Your task to perform on an android device: open app "VLC for Android" Image 0: 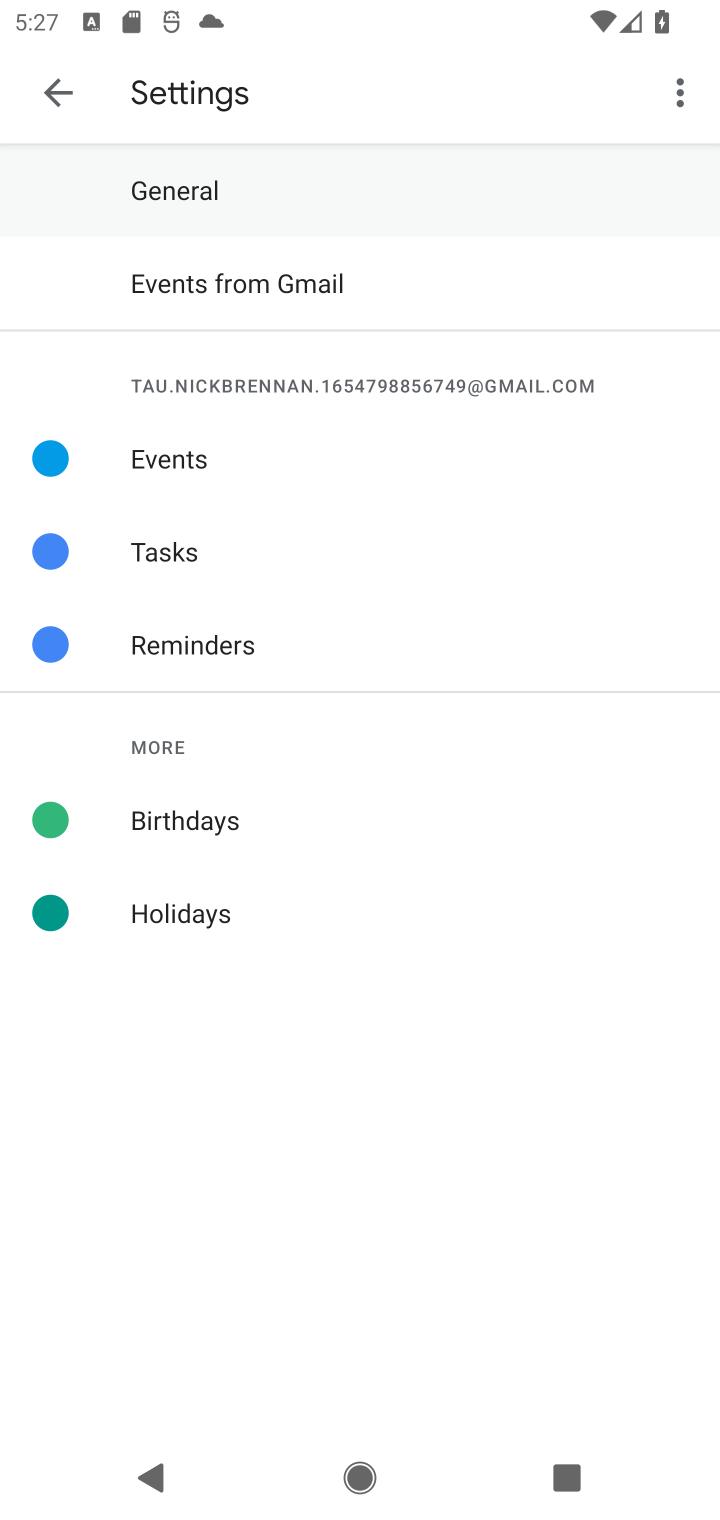
Step 0: press home button
Your task to perform on an android device: open app "VLC for Android" Image 1: 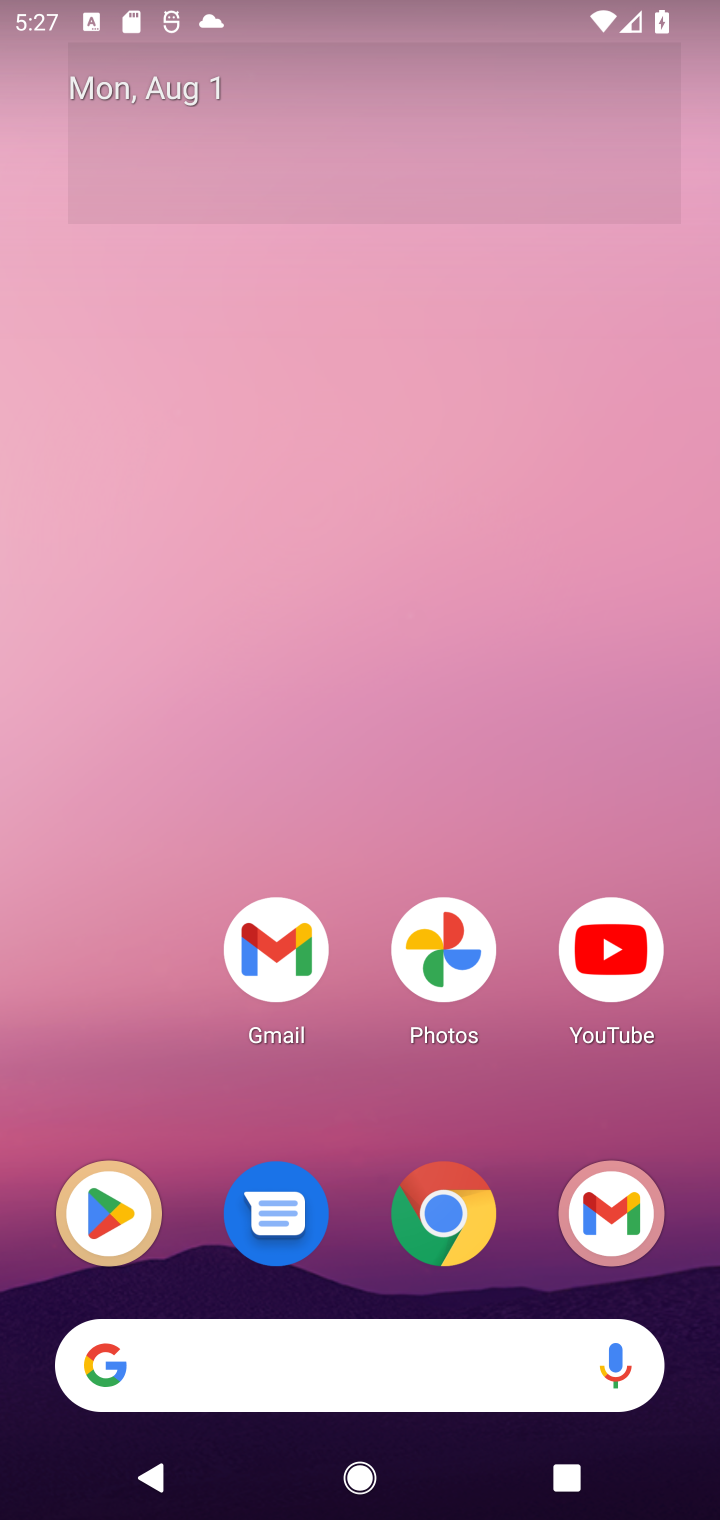
Step 1: drag from (550, 1112) to (585, 38)
Your task to perform on an android device: open app "VLC for Android" Image 2: 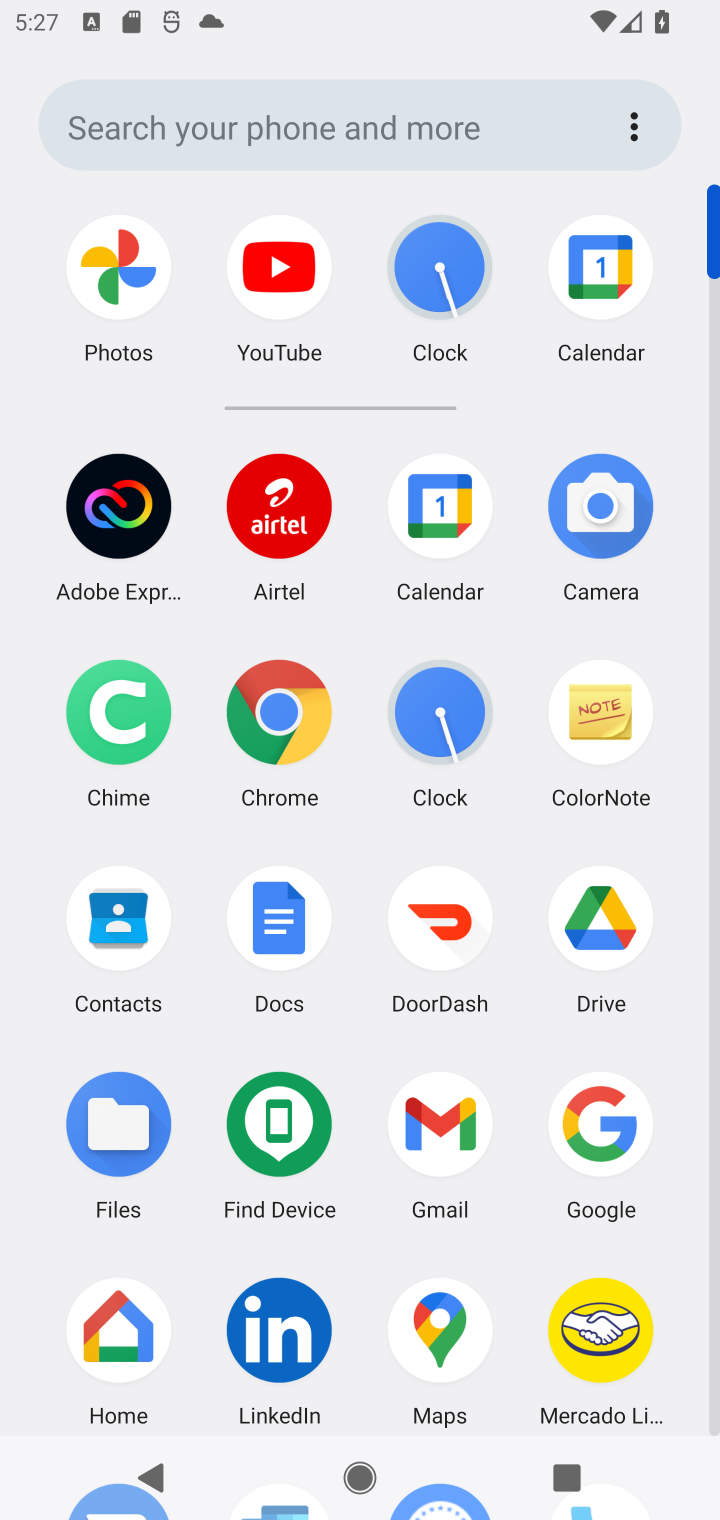
Step 2: drag from (374, 1284) to (404, 466)
Your task to perform on an android device: open app "VLC for Android" Image 3: 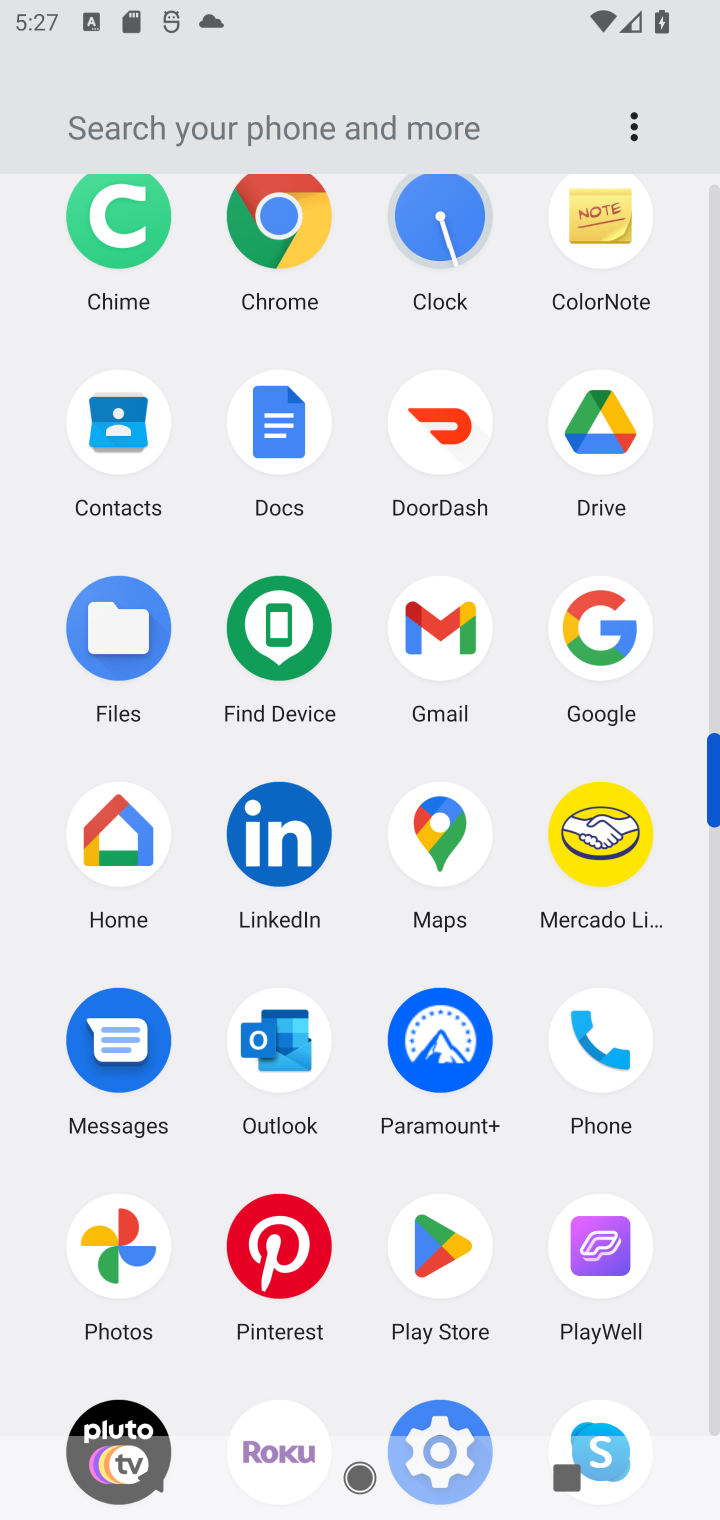
Step 3: click (453, 1241)
Your task to perform on an android device: open app "VLC for Android" Image 4: 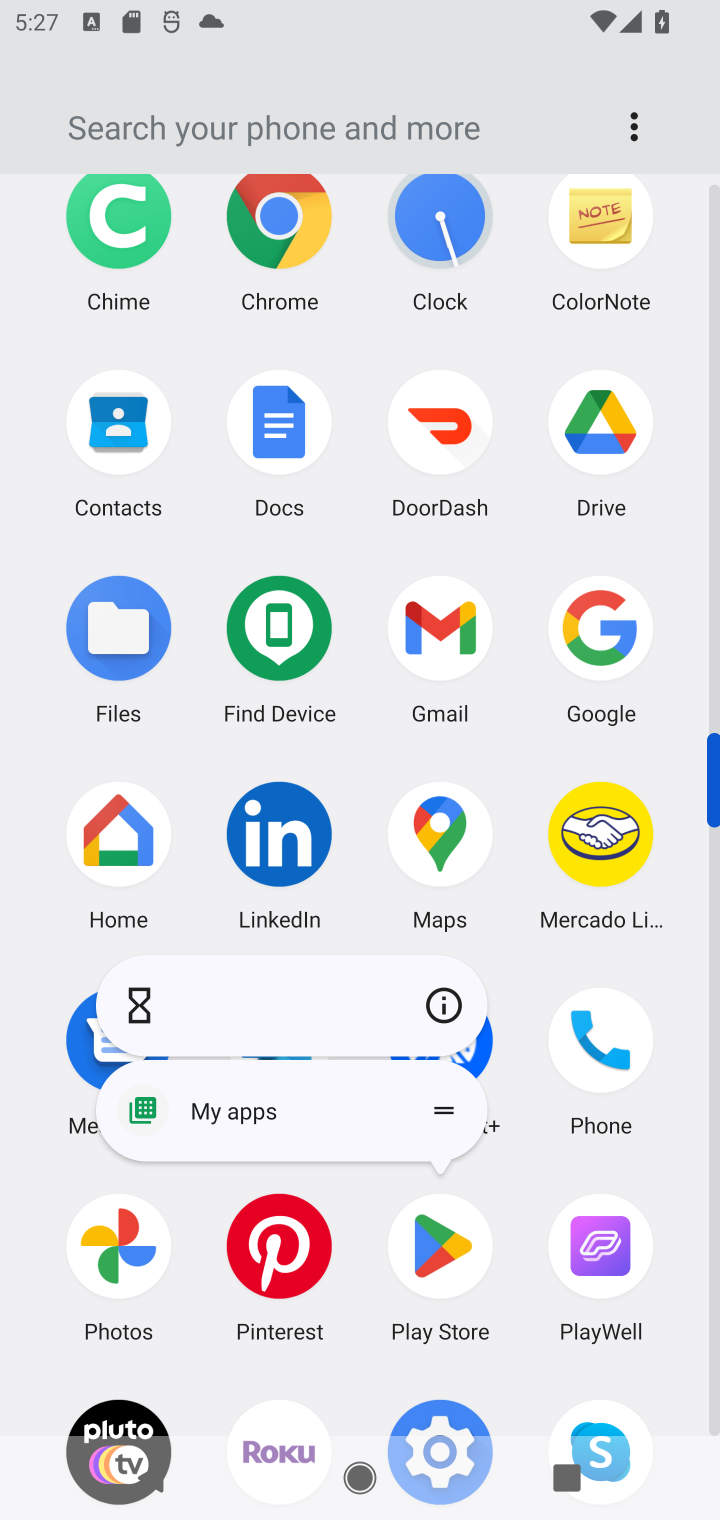
Step 4: click (451, 1241)
Your task to perform on an android device: open app "VLC for Android" Image 5: 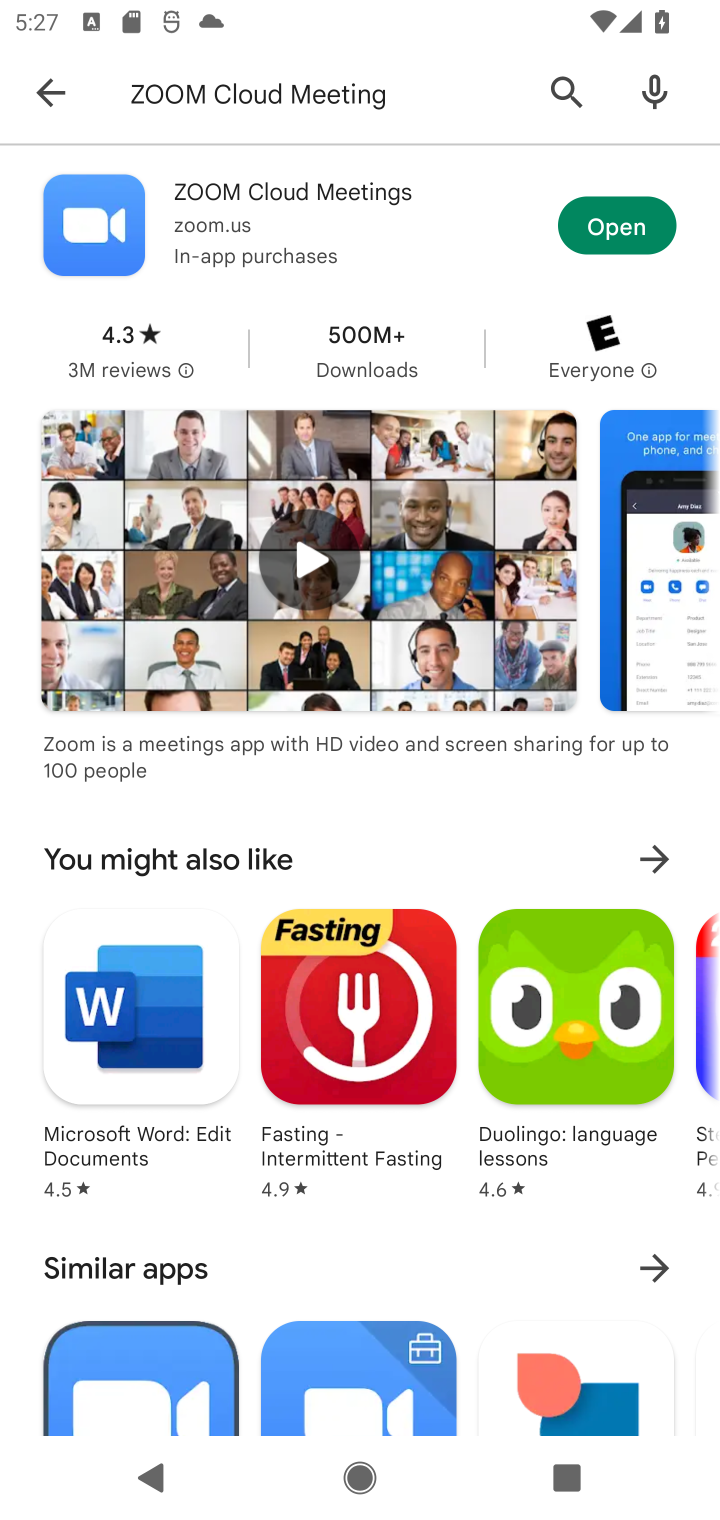
Step 5: click (394, 105)
Your task to perform on an android device: open app "VLC for Android" Image 6: 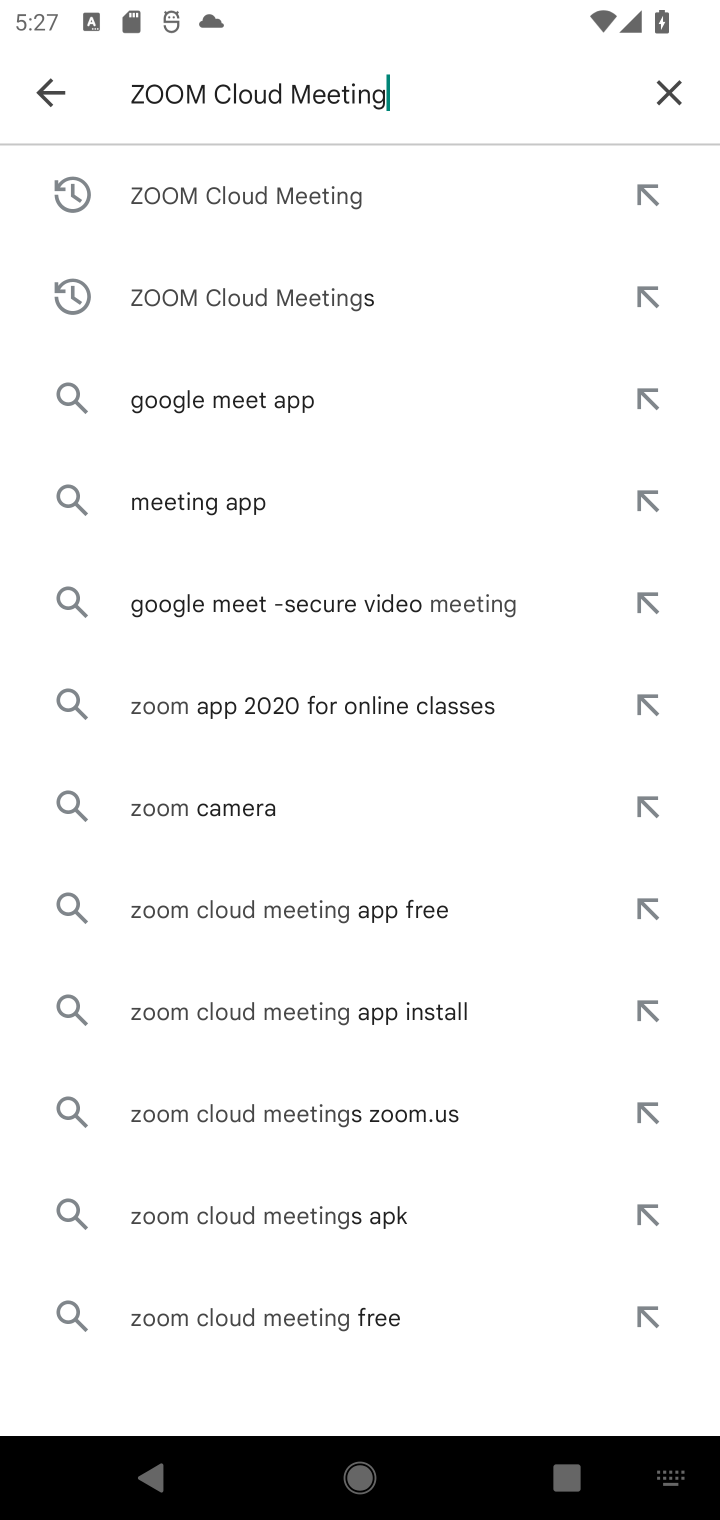
Step 6: click (683, 86)
Your task to perform on an android device: open app "VLC for Android" Image 7: 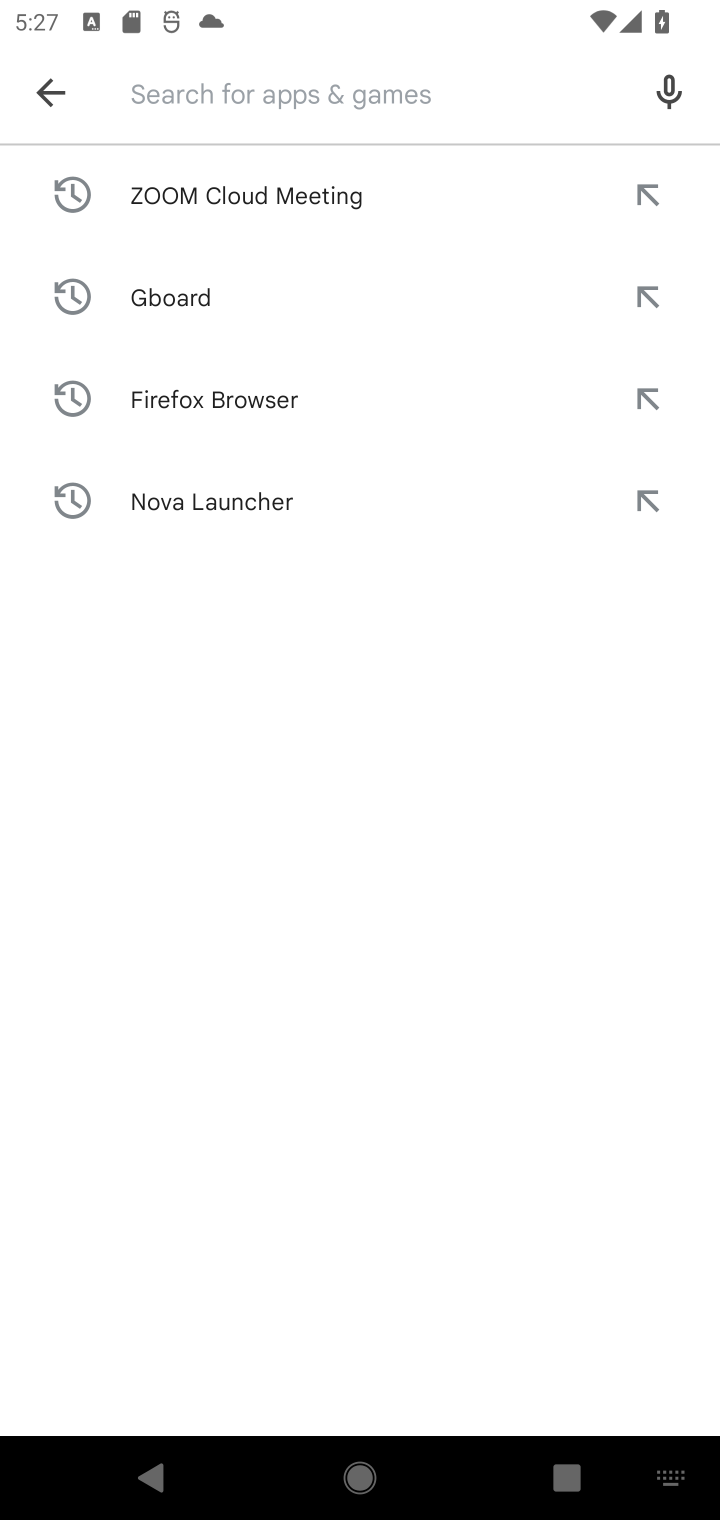
Step 7: type "VLC for Andorid"
Your task to perform on an android device: open app "VLC for Android" Image 8: 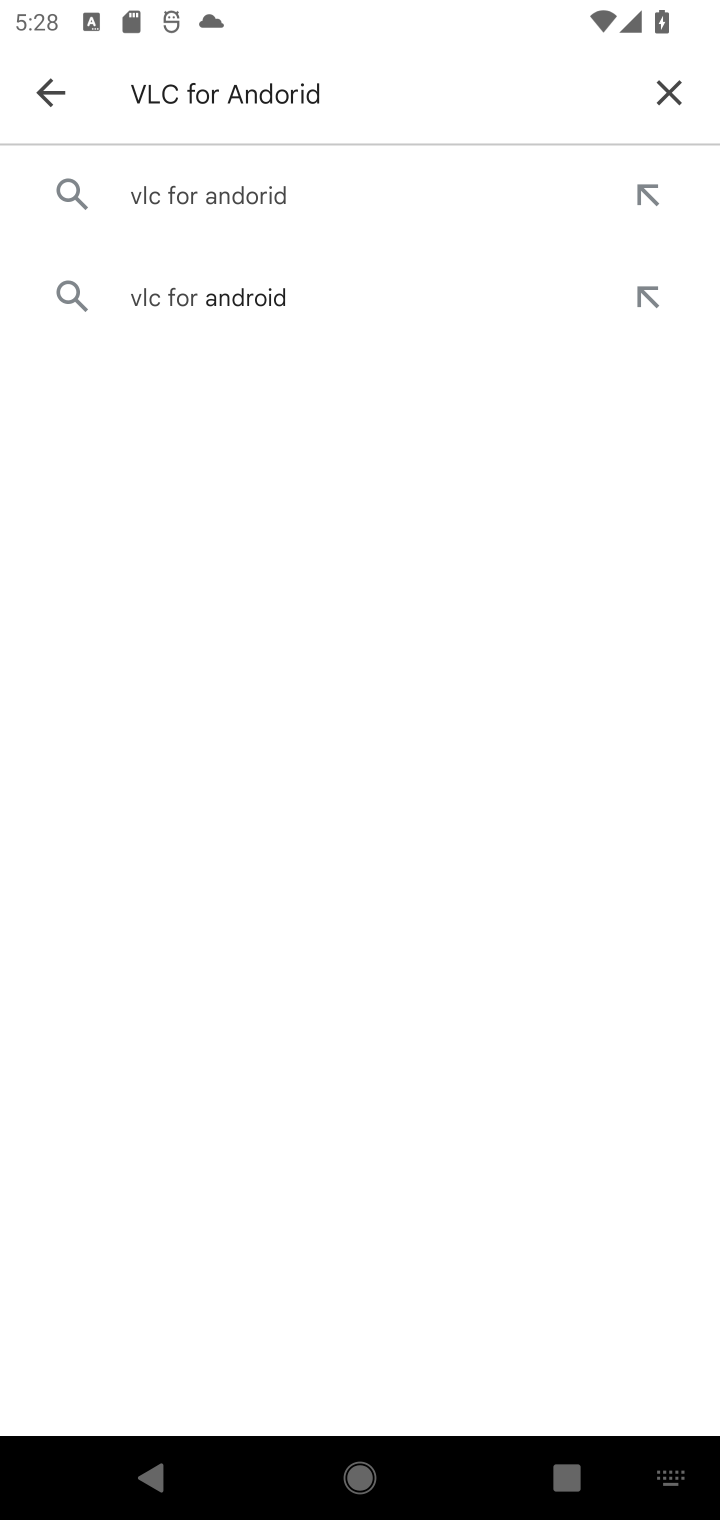
Step 8: press enter
Your task to perform on an android device: open app "VLC for Android" Image 9: 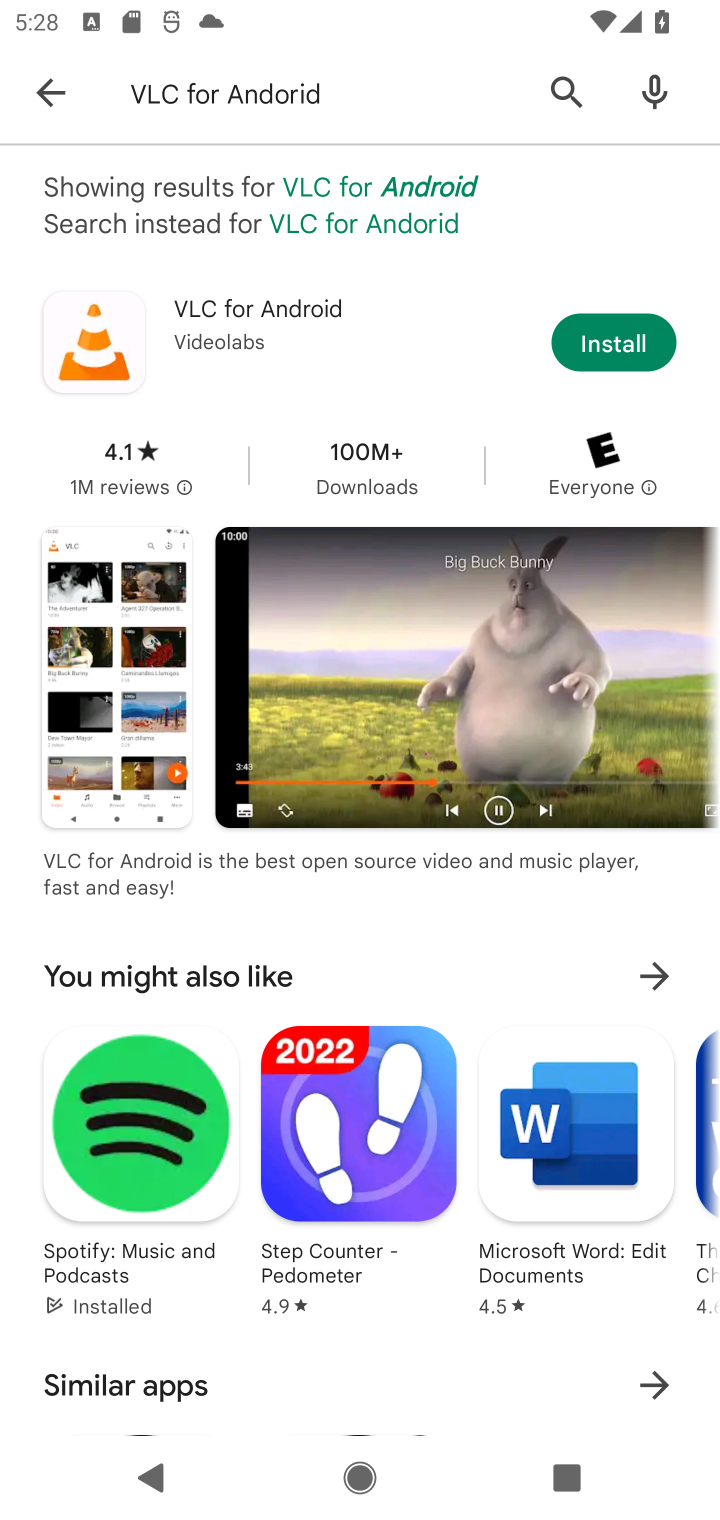
Step 9: click (245, 325)
Your task to perform on an android device: open app "VLC for Android" Image 10: 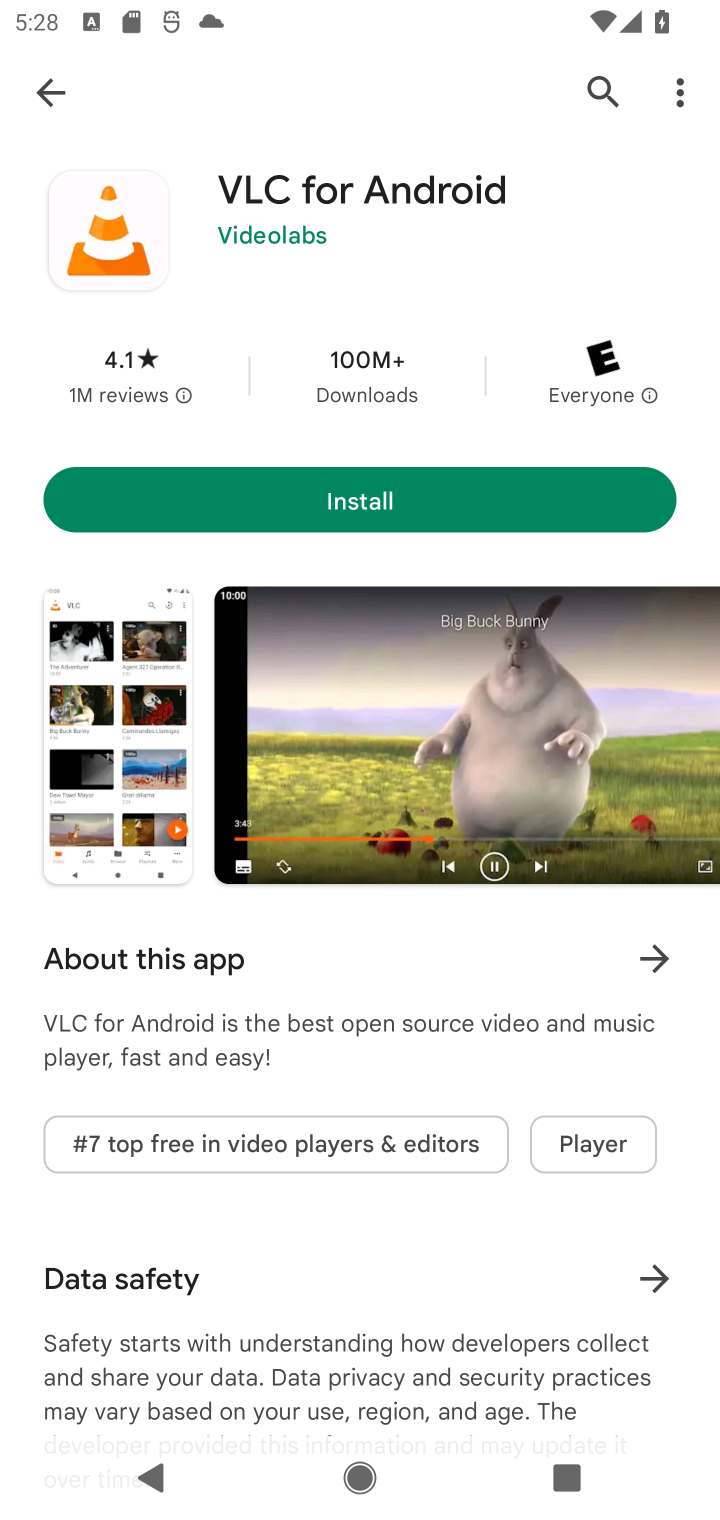
Step 10: task complete